Your task to perform on an android device: turn off smart reply in the gmail app Image 0: 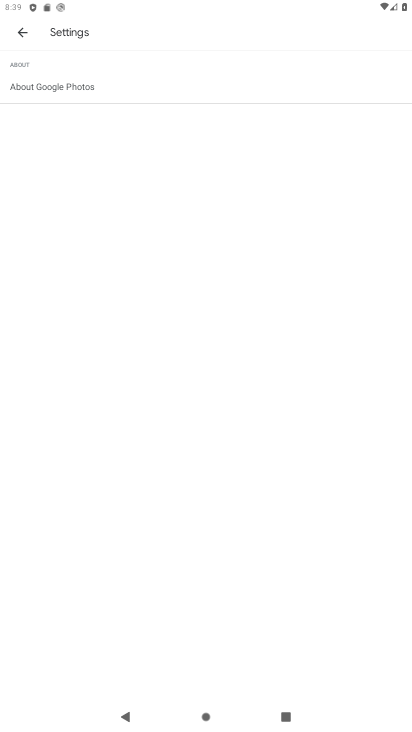
Step 0: press home button
Your task to perform on an android device: turn off smart reply in the gmail app Image 1: 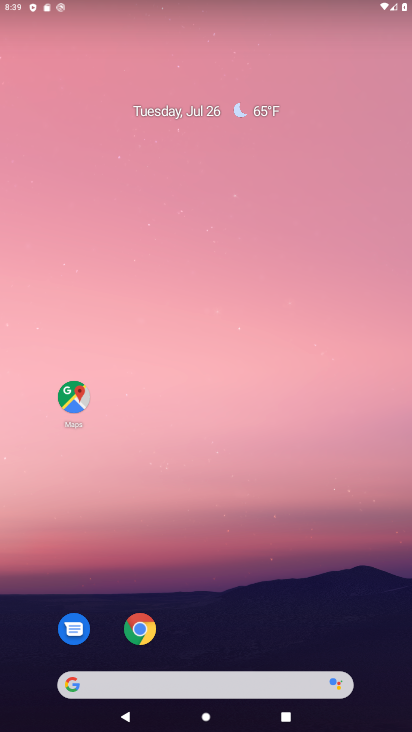
Step 1: drag from (316, 572) to (289, 31)
Your task to perform on an android device: turn off smart reply in the gmail app Image 2: 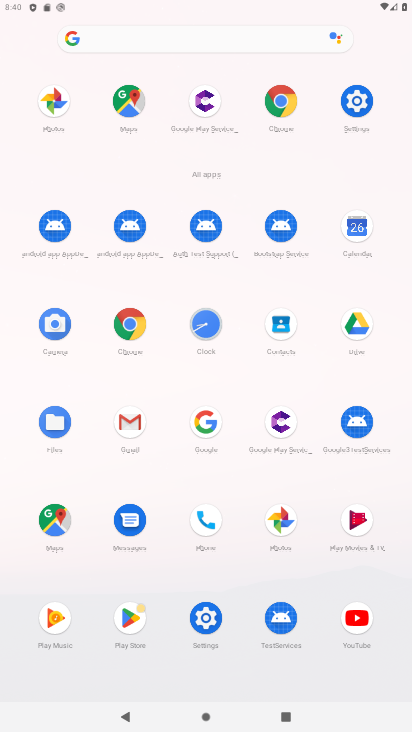
Step 2: click (133, 415)
Your task to perform on an android device: turn off smart reply in the gmail app Image 3: 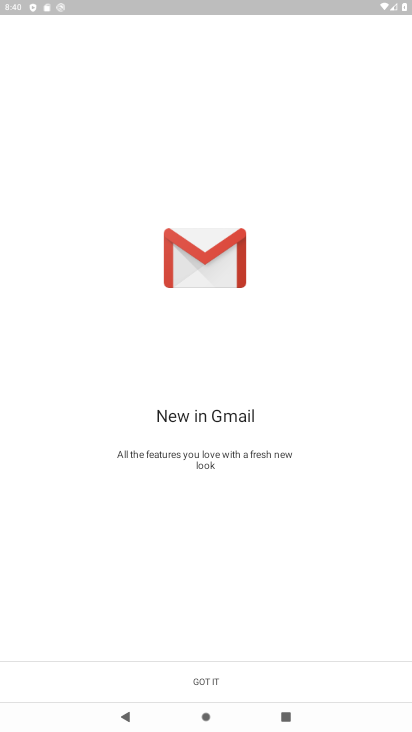
Step 3: click (221, 679)
Your task to perform on an android device: turn off smart reply in the gmail app Image 4: 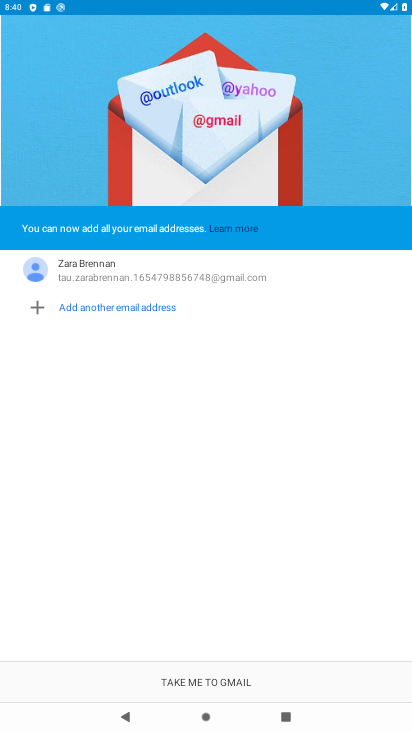
Step 4: click (152, 681)
Your task to perform on an android device: turn off smart reply in the gmail app Image 5: 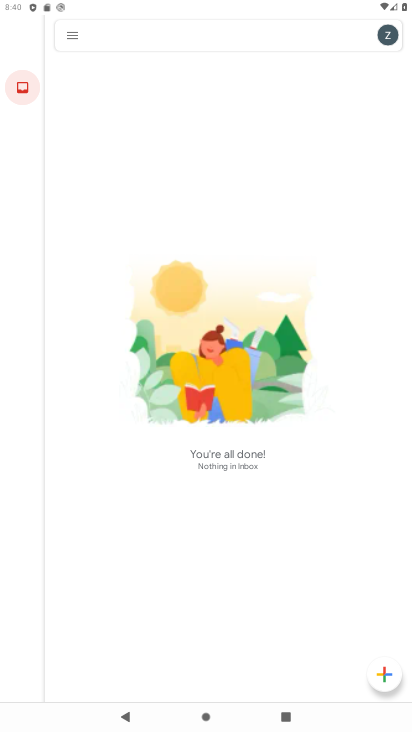
Step 5: click (65, 31)
Your task to perform on an android device: turn off smart reply in the gmail app Image 6: 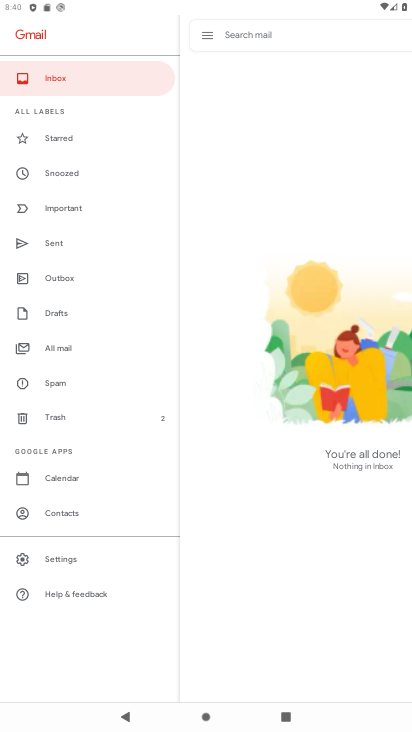
Step 6: click (54, 563)
Your task to perform on an android device: turn off smart reply in the gmail app Image 7: 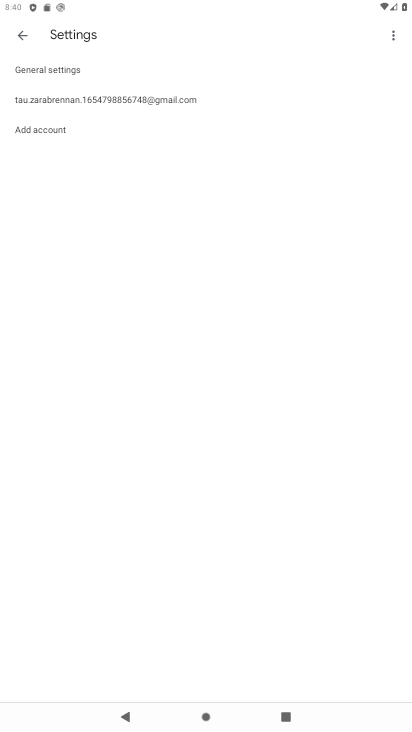
Step 7: click (67, 98)
Your task to perform on an android device: turn off smart reply in the gmail app Image 8: 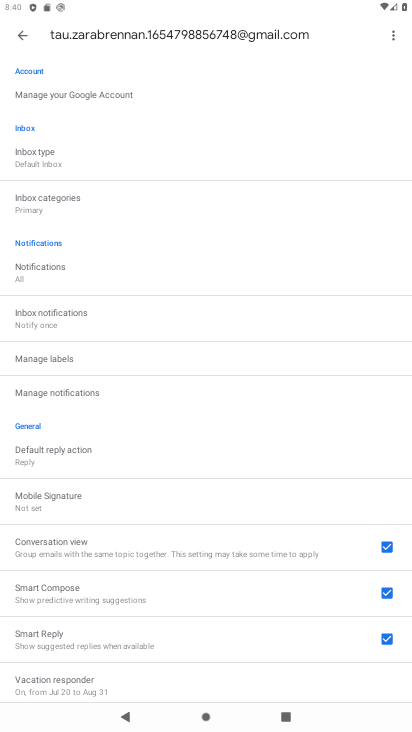
Step 8: click (387, 634)
Your task to perform on an android device: turn off smart reply in the gmail app Image 9: 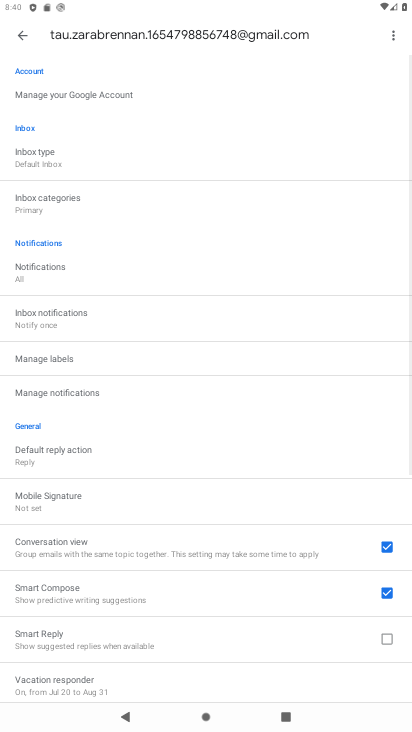
Step 9: task complete